Your task to perform on an android device: Open Youtube and go to the subscriptions tab Image 0: 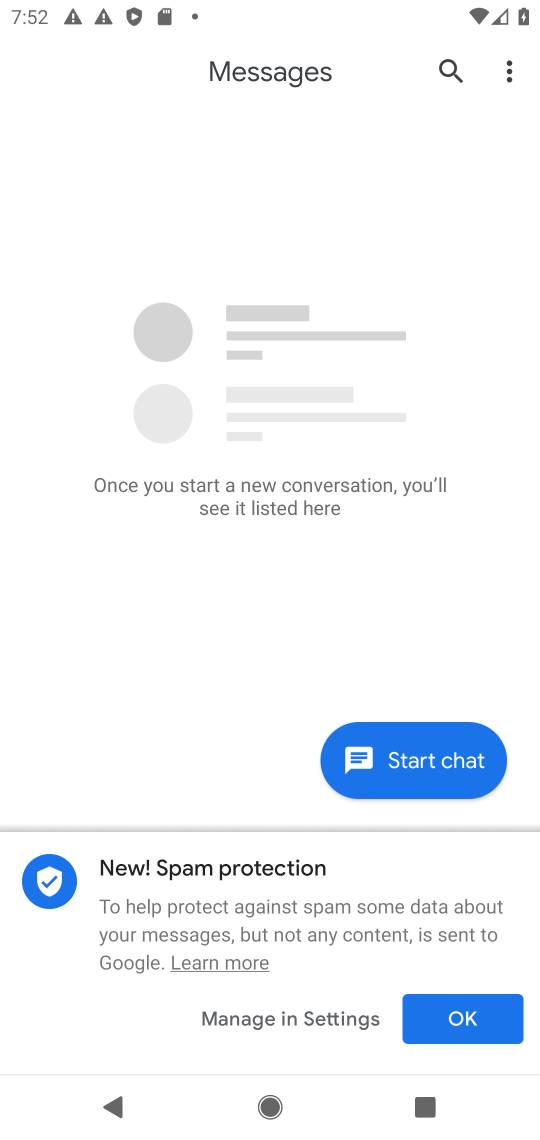
Step 0: press home button
Your task to perform on an android device: Open Youtube and go to the subscriptions tab Image 1: 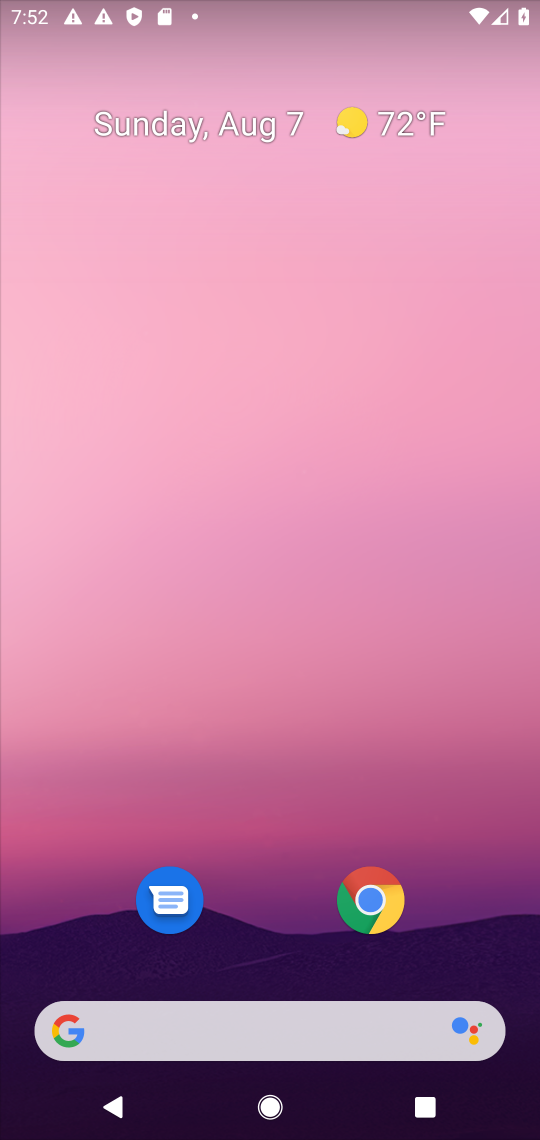
Step 1: drag from (229, 1032) to (360, 317)
Your task to perform on an android device: Open Youtube and go to the subscriptions tab Image 2: 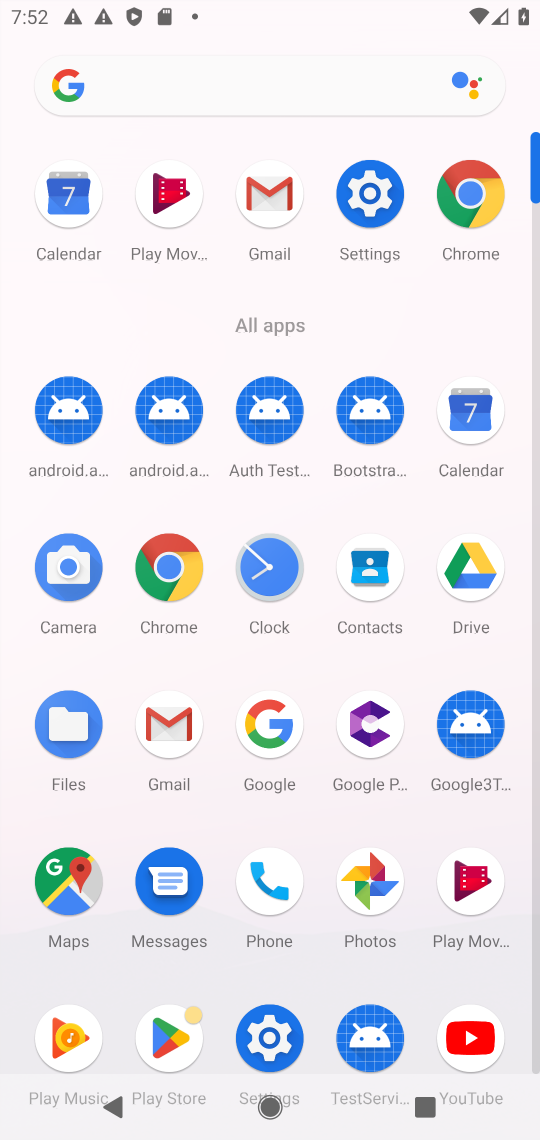
Step 2: click (461, 1043)
Your task to perform on an android device: Open Youtube and go to the subscriptions tab Image 3: 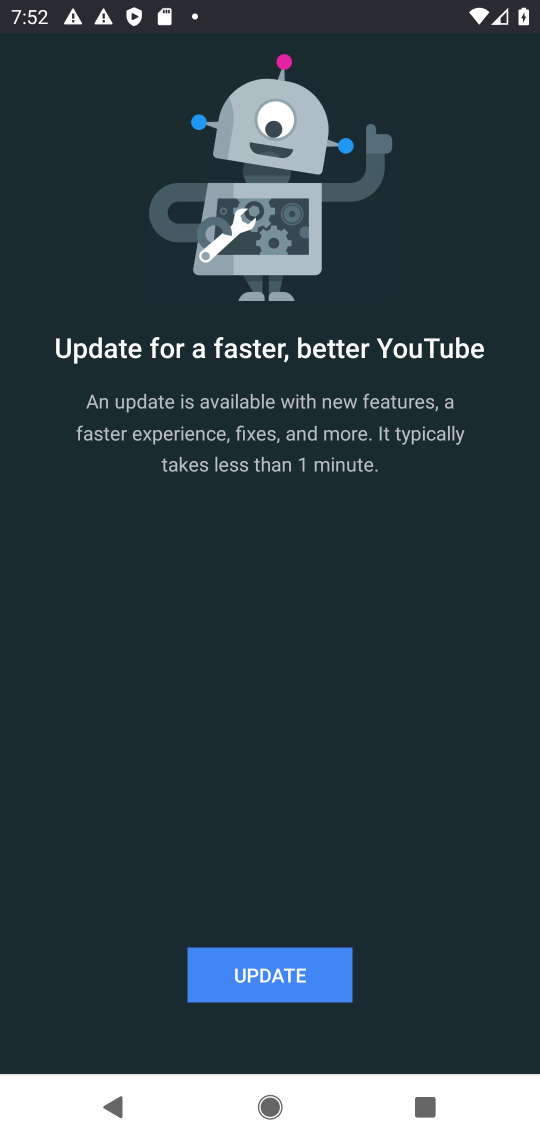
Step 3: click (261, 981)
Your task to perform on an android device: Open Youtube and go to the subscriptions tab Image 4: 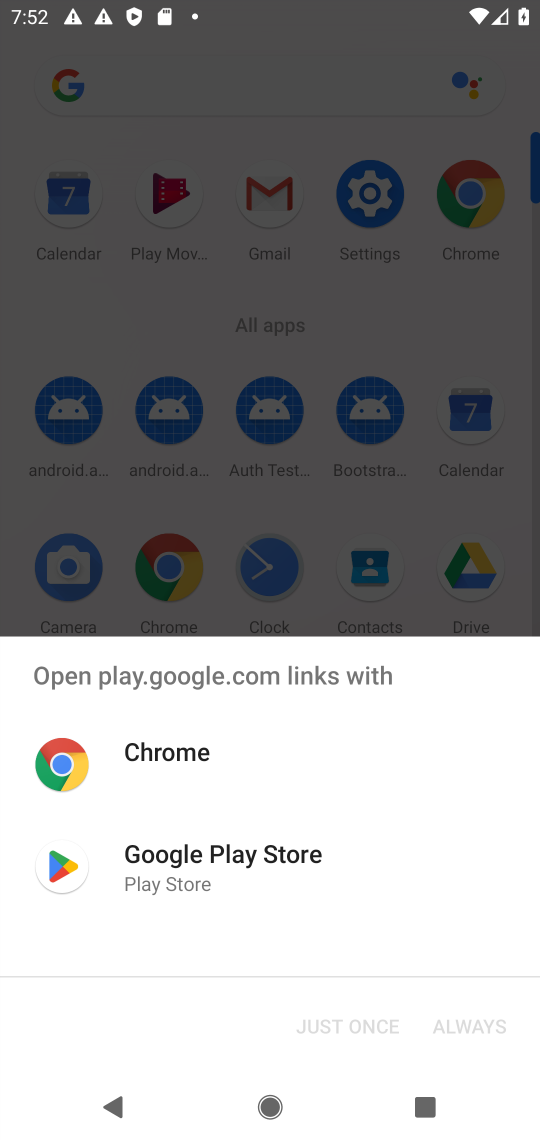
Step 4: click (195, 853)
Your task to perform on an android device: Open Youtube and go to the subscriptions tab Image 5: 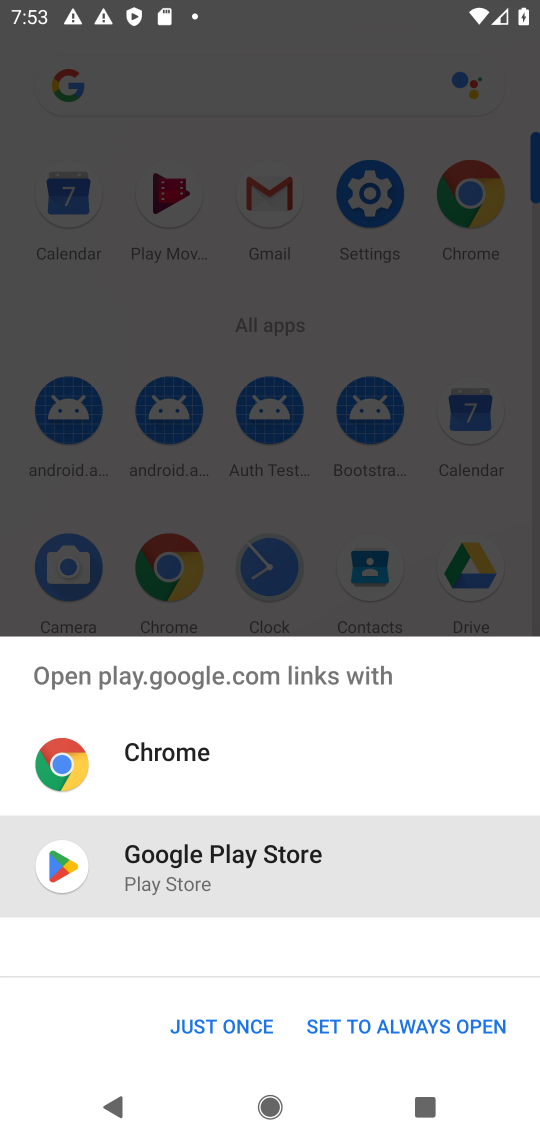
Step 5: click (232, 1021)
Your task to perform on an android device: Open Youtube and go to the subscriptions tab Image 6: 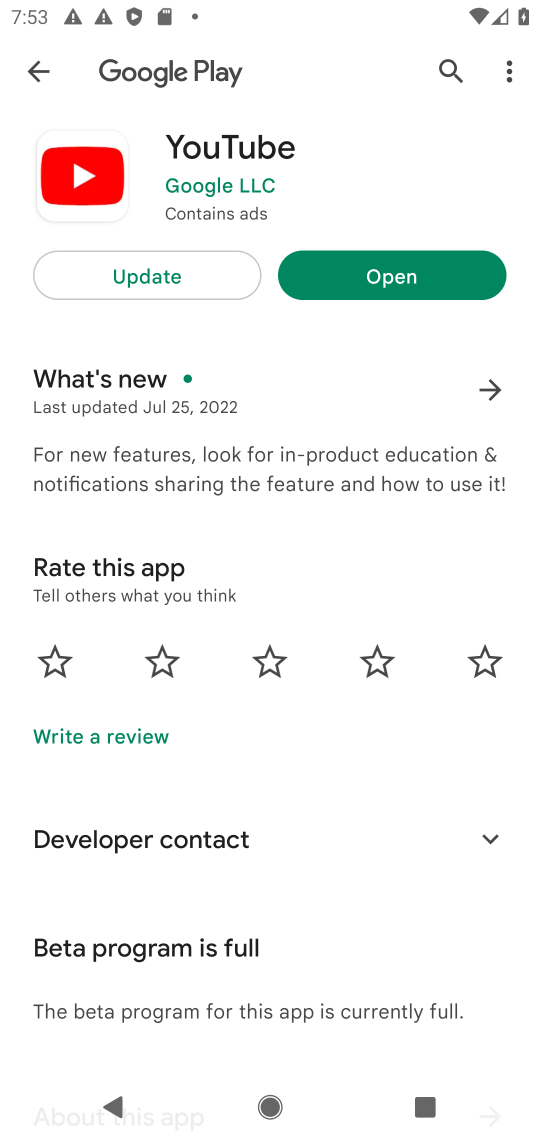
Step 6: click (119, 269)
Your task to perform on an android device: Open Youtube and go to the subscriptions tab Image 7: 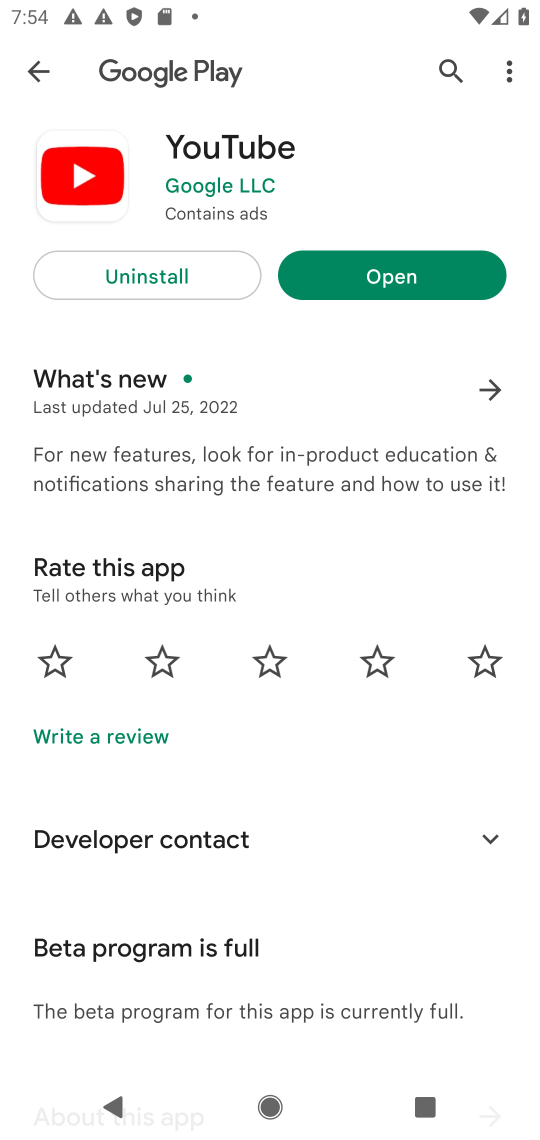
Step 7: click (450, 280)
Your task to perform on an android device: Open Youtube and go to the subscriptions tab Image 8: 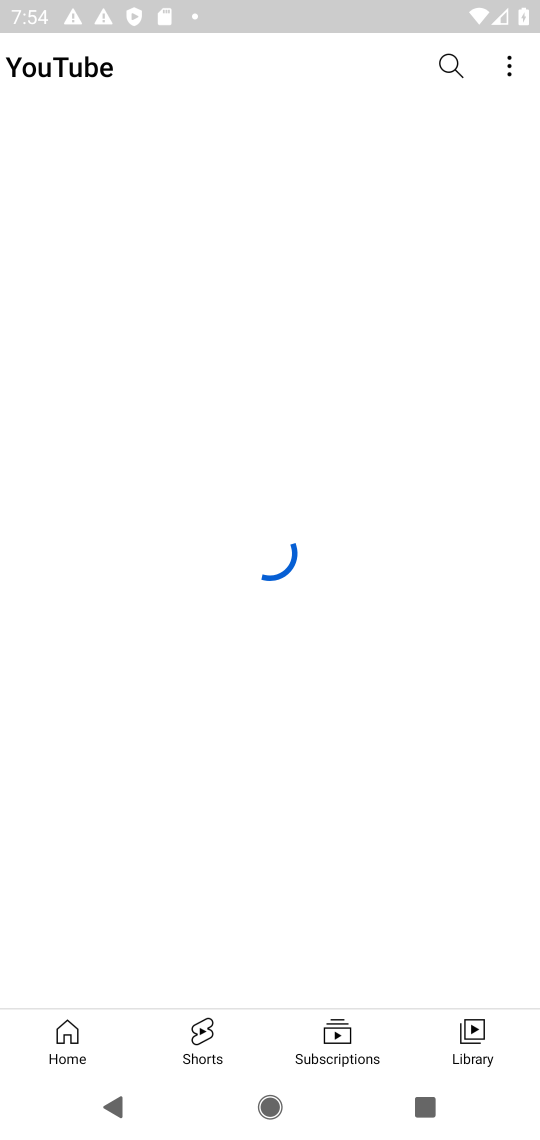
Step 8: click (340, 1040)
Your task to perform on an android device: Open Youtube and go to the subscriptions tab Image 9: 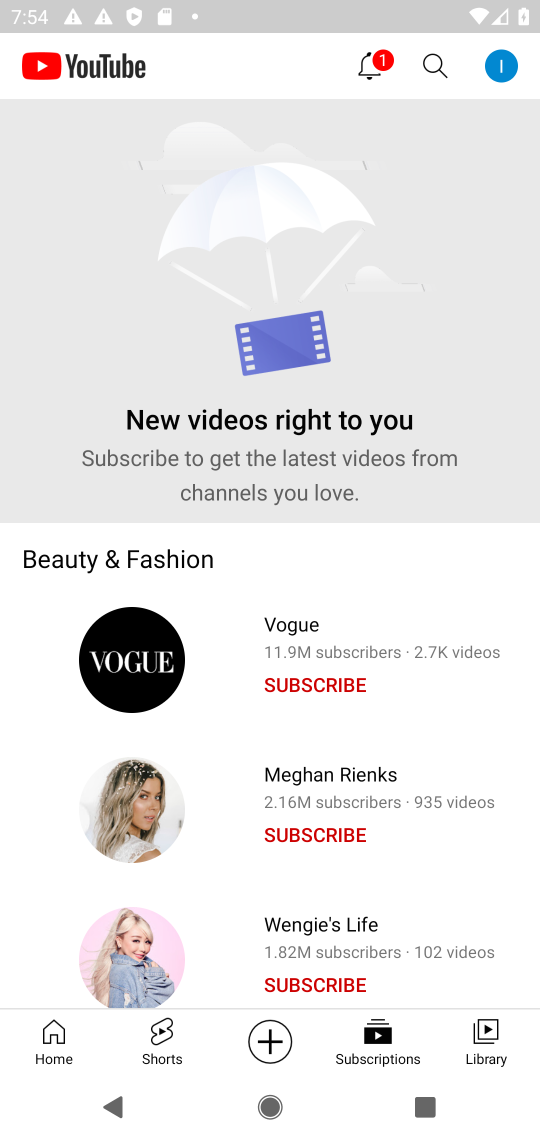
Step 9: task complete